Your task to perform on an android device: turn off data saver in the chrome app Image 0: 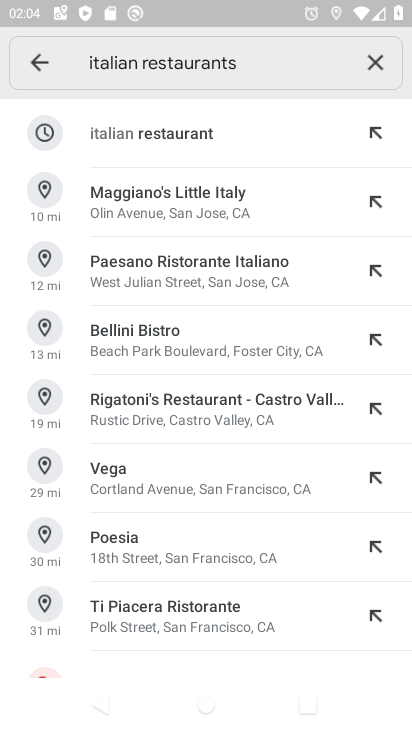
Step 0: press home button
Your task to perform on an android device: turn off data saver in the chrome app Image 1: 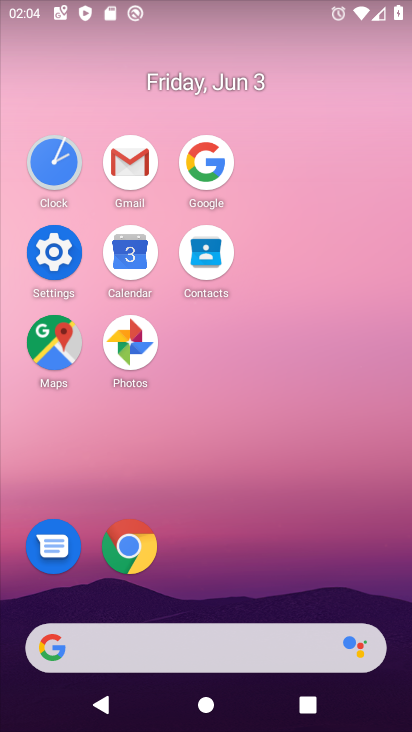
Step 1: click (122, 550)
Your task to perform on an android device: turn off data saver in the chrome app Image 2: 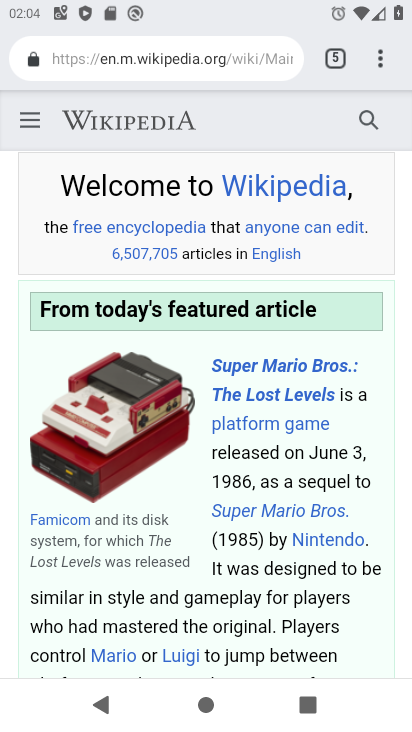
Step 2: click (369, 65)
Your task to perform on an android device: turn off data saver in the chrome app Image 3: 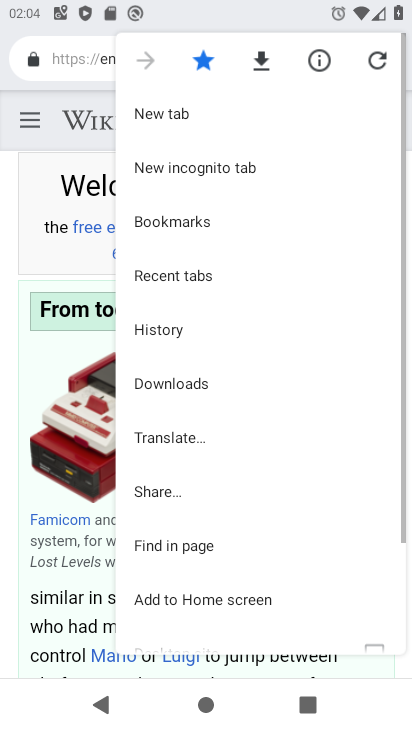
Step 3: drag from (271, 484) to (282, 206)
Your task to perform on an android device: turn off data saver in the chrome app Image 4: 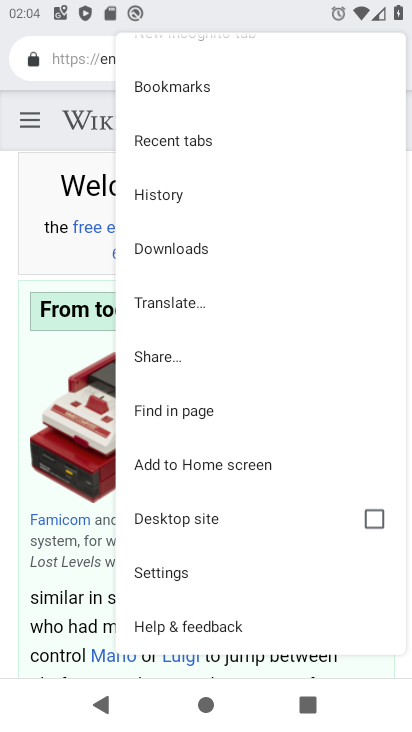
Step 4: click (195, 576)
Your task to perform on an android device: turn off data saver in the chrome app Image 5: 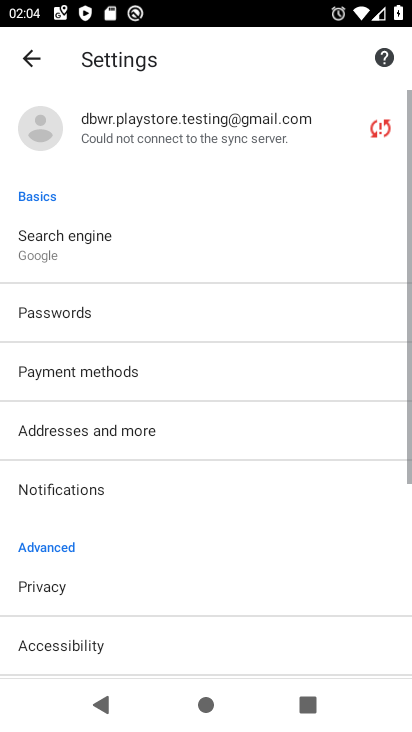
Step 5: drag from (195, 568) to (207, 221)
Your task to perform on an android device: turn off data saver in the chrome app Image 6: 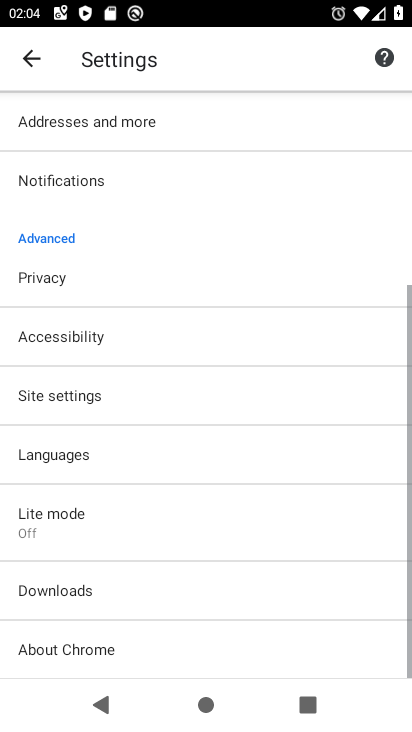
Step 6: click (135, 507)
Your task to perform on an android device: turn off data saver in the chrome app Image 7: 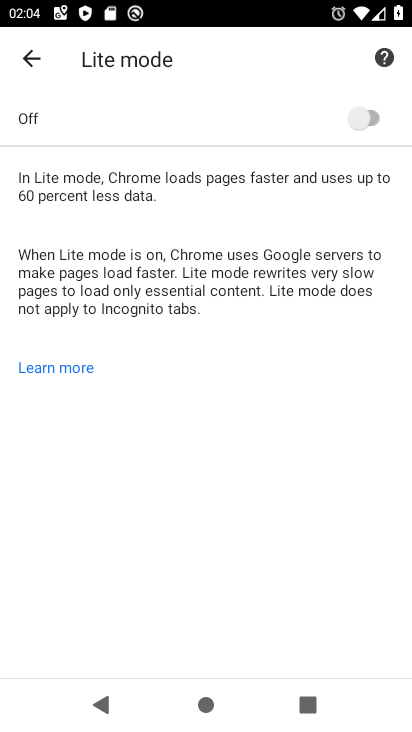
Step 7: task complete